Your task to perform on an android device: check storage Image 0: 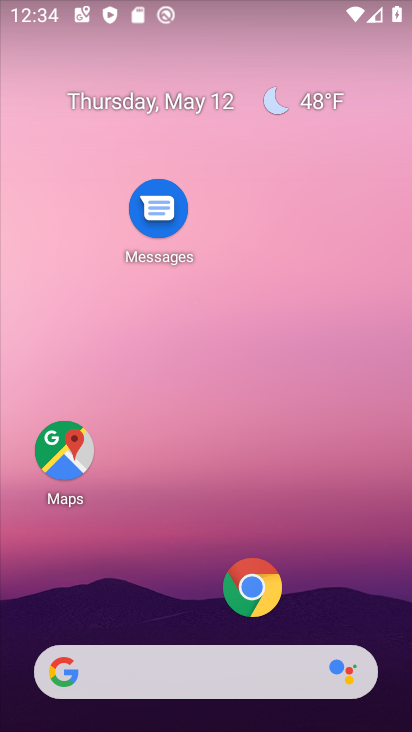
Step 0: drag from (199, 635) to (162, 6)
Your task to perform on an android device: check storage Image 1: 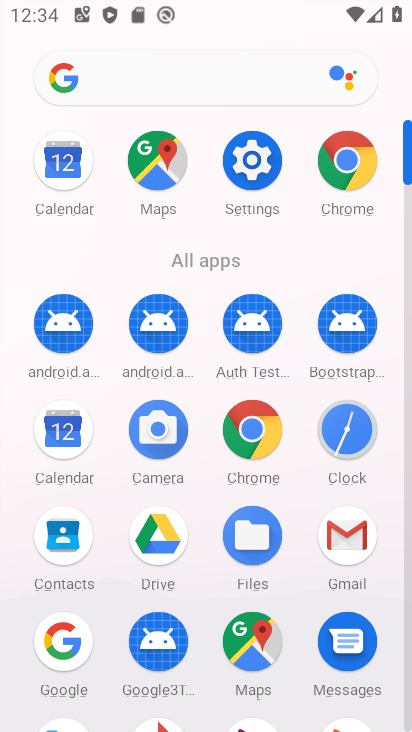
Step 1: click (228, 159)
Your task to perform on an android device: check storage Image 2: 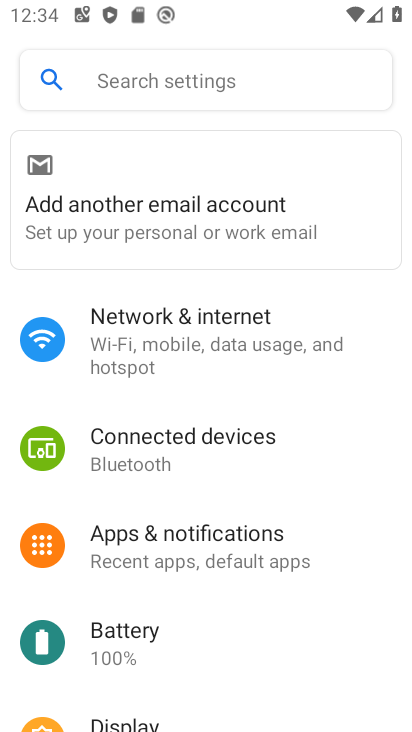
Step 2: drag from (204, 616) to (193, 278)
Your task to perform on an android device: check storage Image 3: 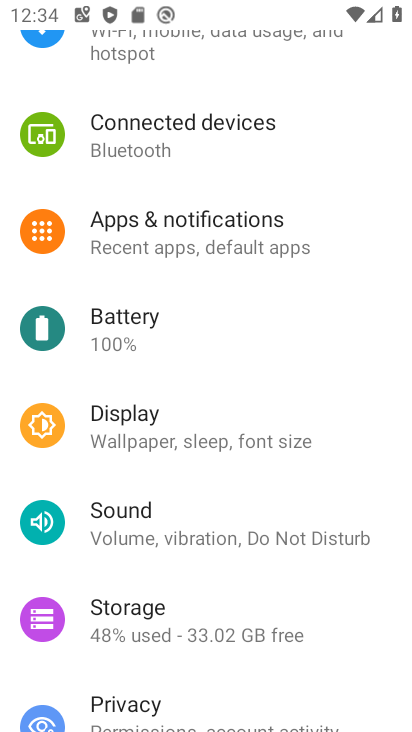
Step 3: click (130, 598)
Your task to perform on an android device: check storage Image 4: 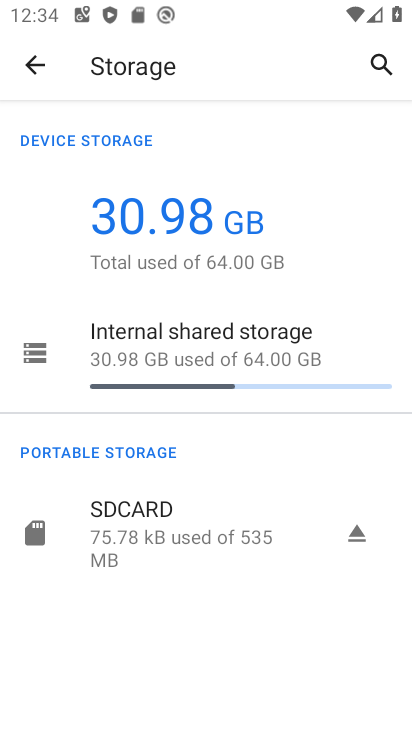
Step 4: task complete